Your task to perform on an android device: Open calendar and show me the third week of next month Image 0: 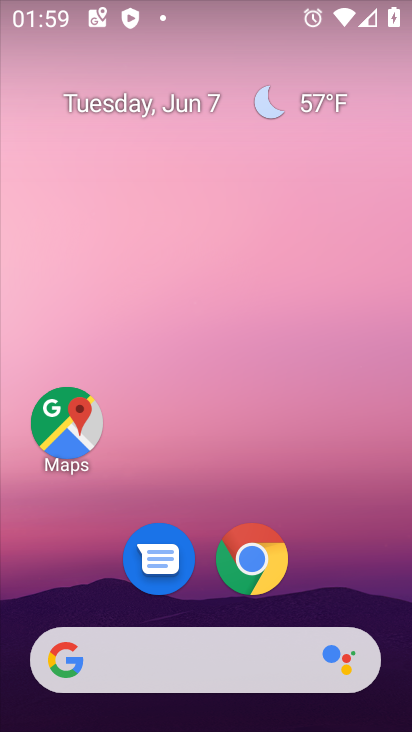
Step 0: drag from (341, 574) to (185, 96)
Your task to perform on an android device: Open calendar and show me the third week of next month Image 1: 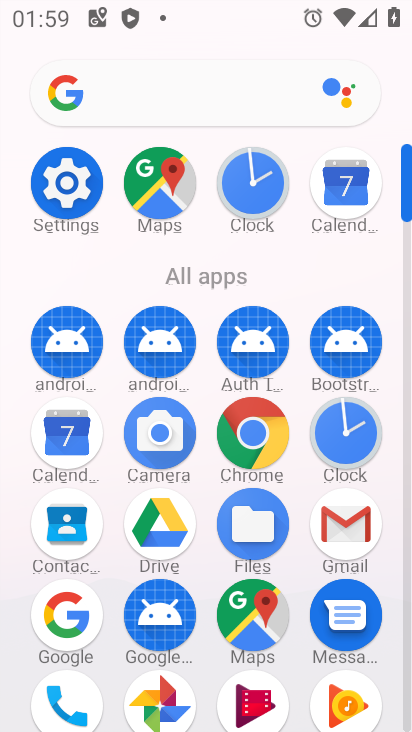
Step 1: click (345, 187)
Your task to perform on an android device: Open calendar and show me the third week of next month Image 2: 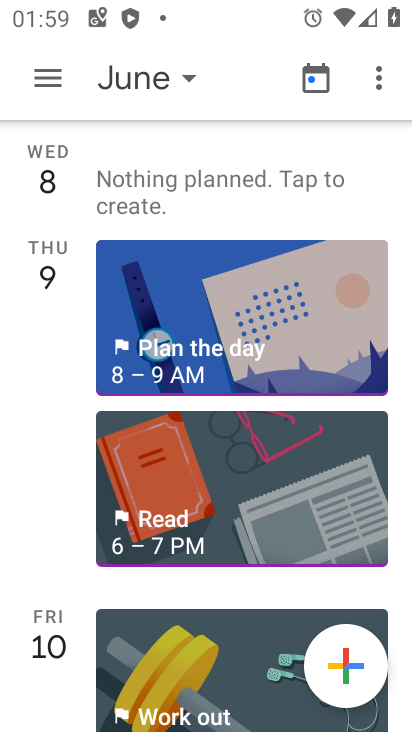
Step 2: click (320, 79)
Your task to perform on an android device: Open calendar and show me the third week of next month Image 3: 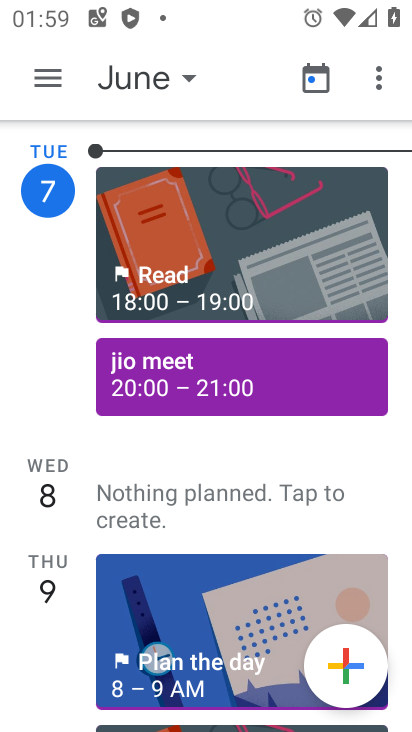
Step 3: click (189, 77)
Your task to perform on an android device: Open calendar and show me the third week of next month Image 4: 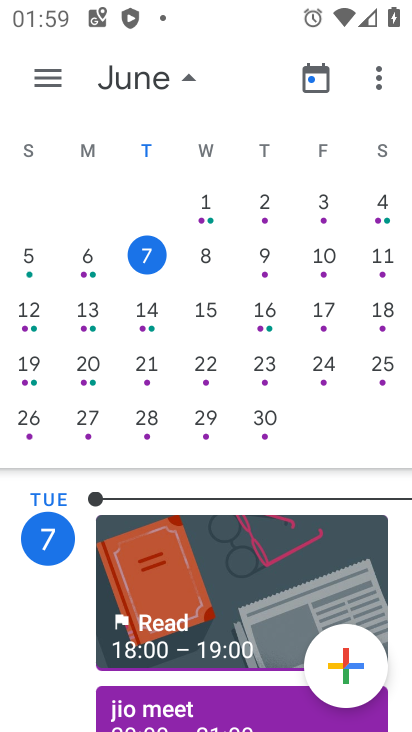
Step 4: drag from (355, 323) to (29, 342)
Your task to perform on an android device: Open calendar and show me the third week of next month Image 5: 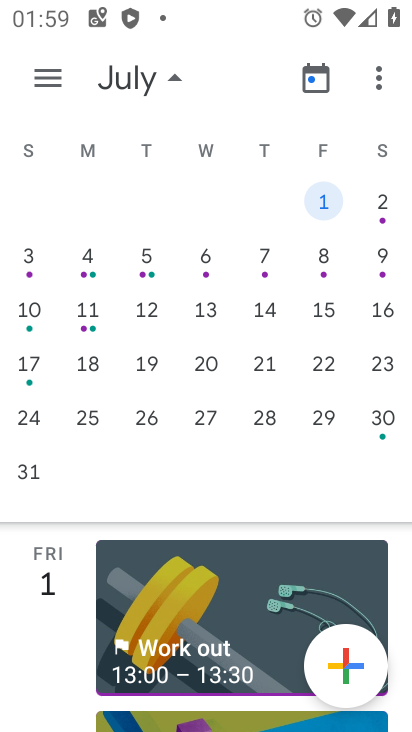
Step 5: click (91, 366)
Your task to perform on an android device: Open calendar and show me the third week of next month Image 6: 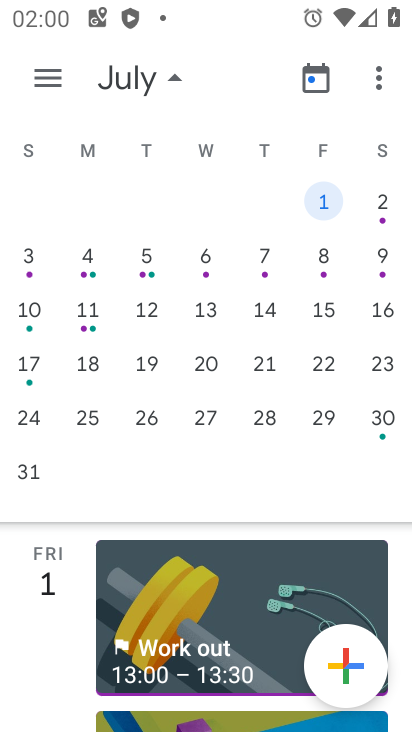
Step 6: click (91, 366)
Your task to perform on an android device: Open calendar and show me the third week of next month Image 7: 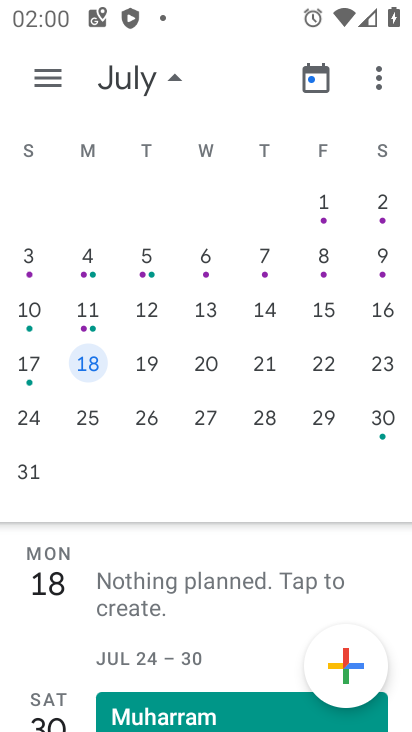
Step 7: click (42, 88)
Your task to perform on an android device: Open calendar and show me the third week of next month Image 8: 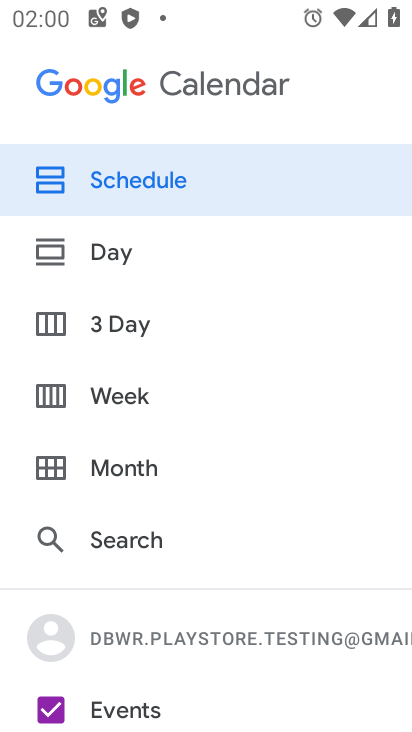
Step 8: click (117, 402)
Your task to perform on an android device: Open calendar and show me the third week of next month Image 9: 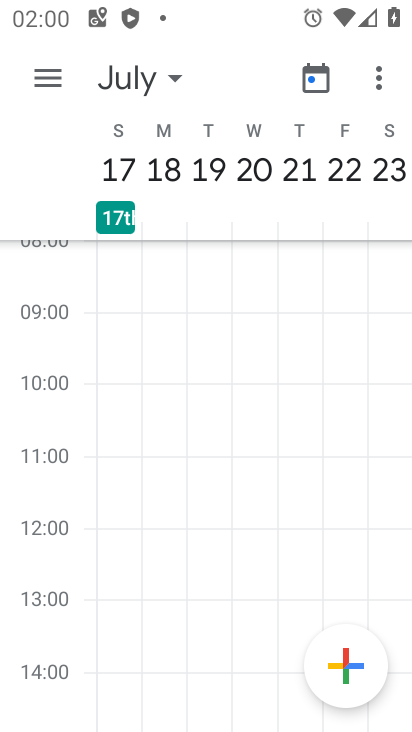
Step 9: task complete